Your task to perform on an android device: Open the calendar and show me this week's events? Image 0: 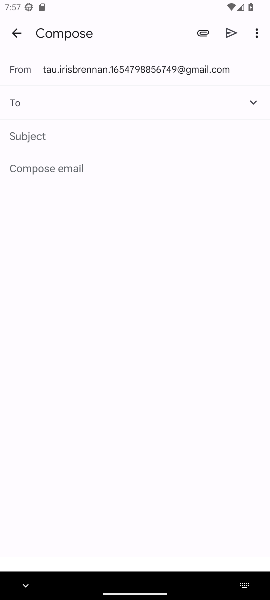
Step 0: press back button
Your task to perform on an android device: Open the calendar and show me this week's events? Image 1: 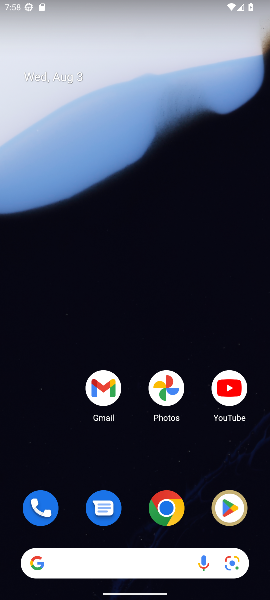
Step 1: drag from (135, 526) to (67, 3)
Your task to perform on an android device: Open the calendar and show me this week's events? Image 2: 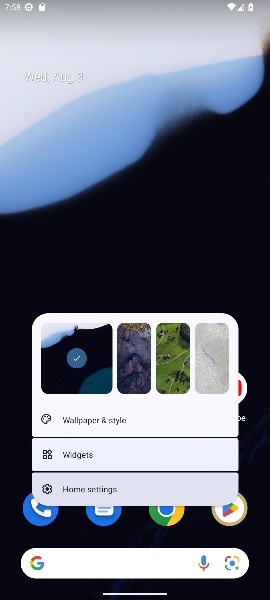
Step 2: click (117, 238)
Your task to perform on an android device: Open the calendar and show me this week's events? Image 3: 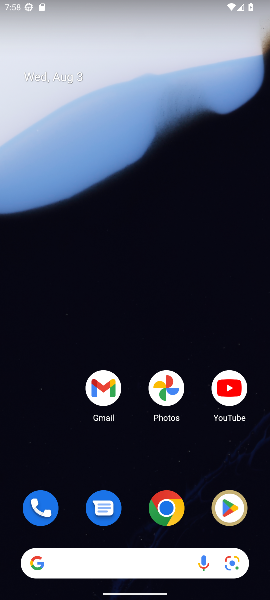
Step 3: drag from (139, 550) to (102, 35)
Your task to perform on an android device: Open the calendar and show me this week's events? Image 4: 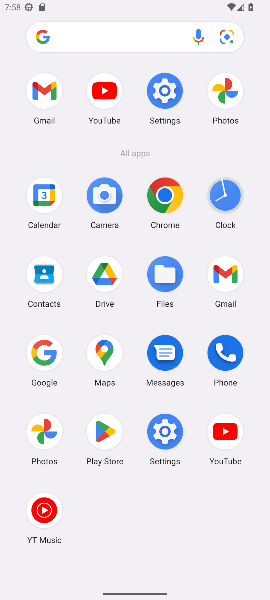
Step 4: click (39, 195)
Your task to perform on an android device: Open the calendar and show me this week's events? Image 5: 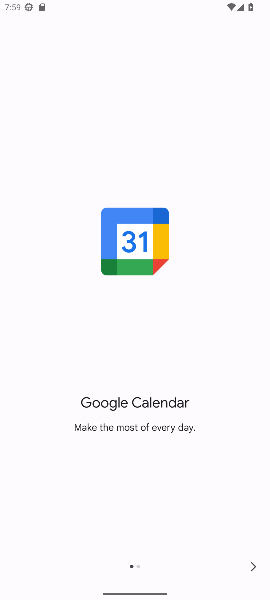
Step 5: click (248, 569)
Your task to perform on an android device: Open the calendar and show me this week's events? Image 6: 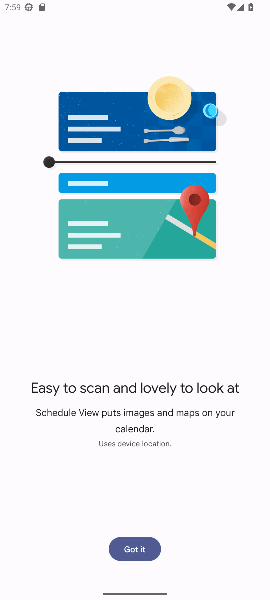
Step 6: press home button
Your task to perform on an android device: Open the calendar and show me this week's events? Image 7: 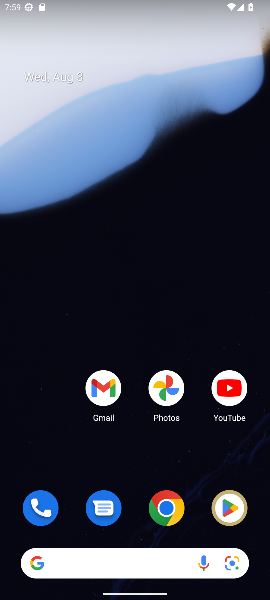
Step 7: drag from (135, 526) to (97, 64)
Your task to perform on an android device: Open the calendar and show me this week's events? Image 8: 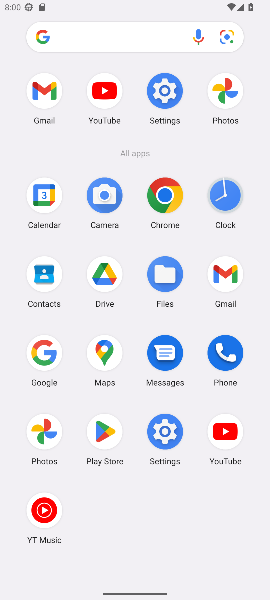
Step 8: click (42, 195)
Your task to perform on an android device: Open the calendar and show me this week's events? Image 9: 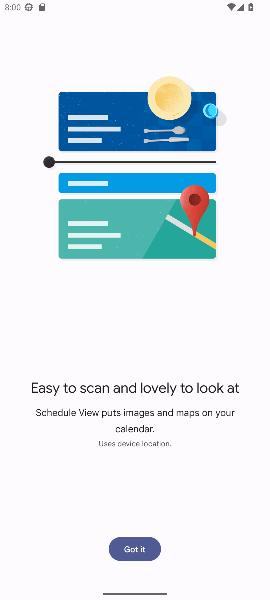
Step 9: click (134, 549)
Your task to perform on an android device: Open the calendar and show me this week's events? Image 10: 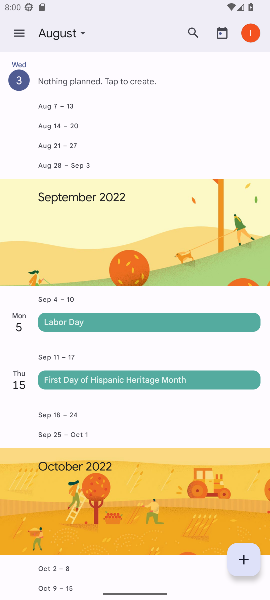
Step 10: task complete